Your task to perform on an android device: What is the speed of a bicycle? Image 0: 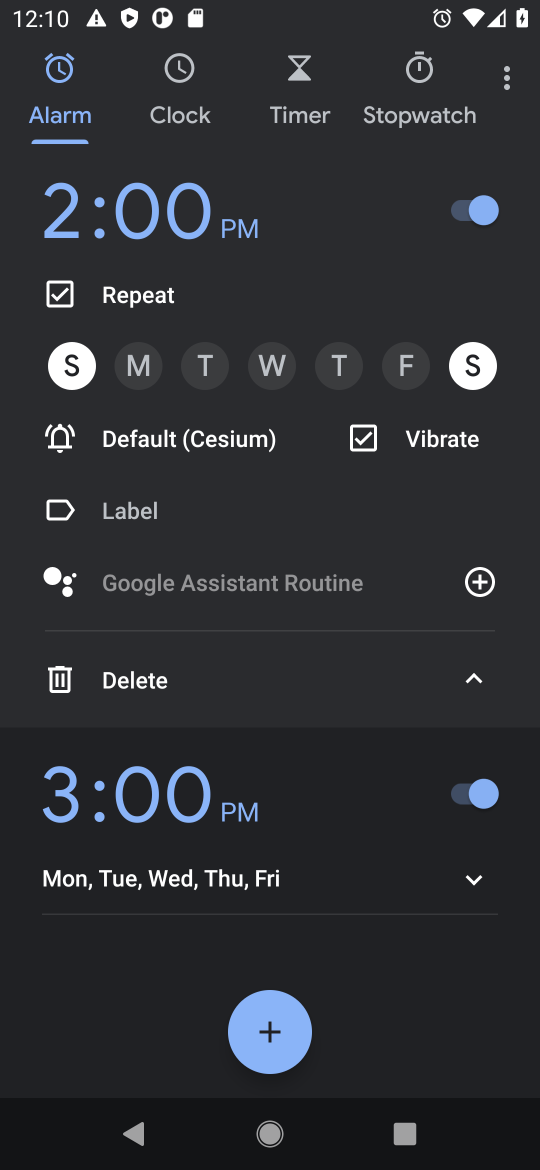
Step 0: press home button
Your task to perform on an android device: What is the speed of a bicycle? Image 1: 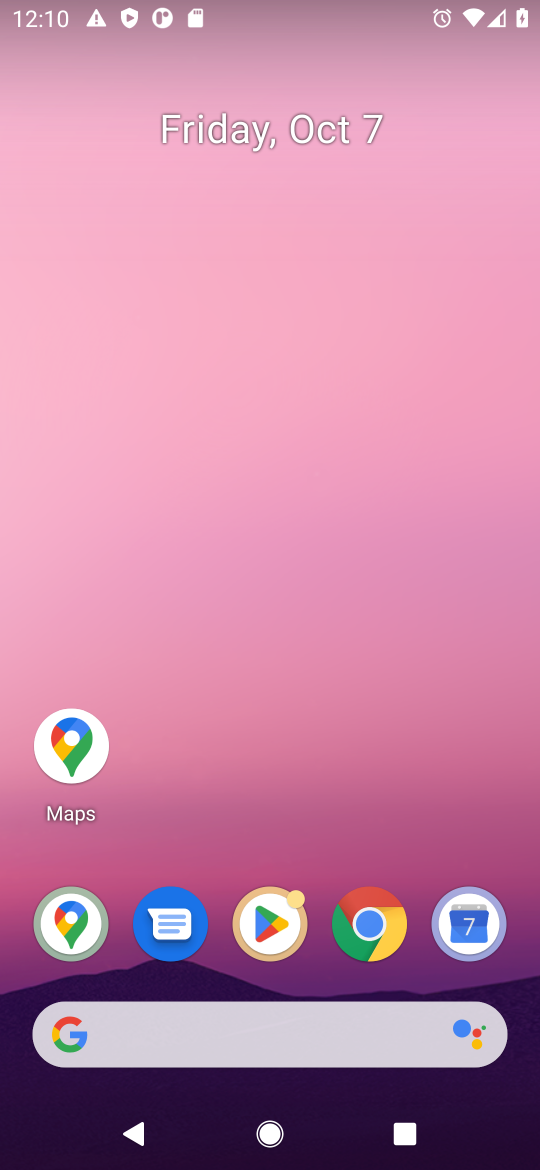
Step 1: click (375, 919)
Your task to perform on an android device: What is the speed of a bicycle? Image 2: 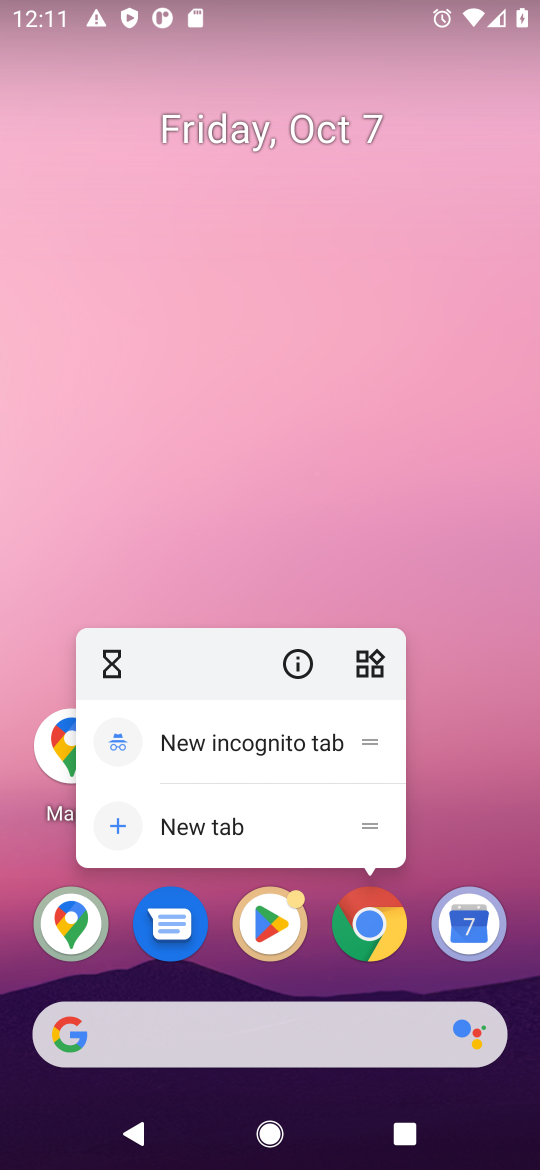
Step 2: click (357, 934)
Your task to perform on an android device: What is the speed of a bicycle? Image 3: 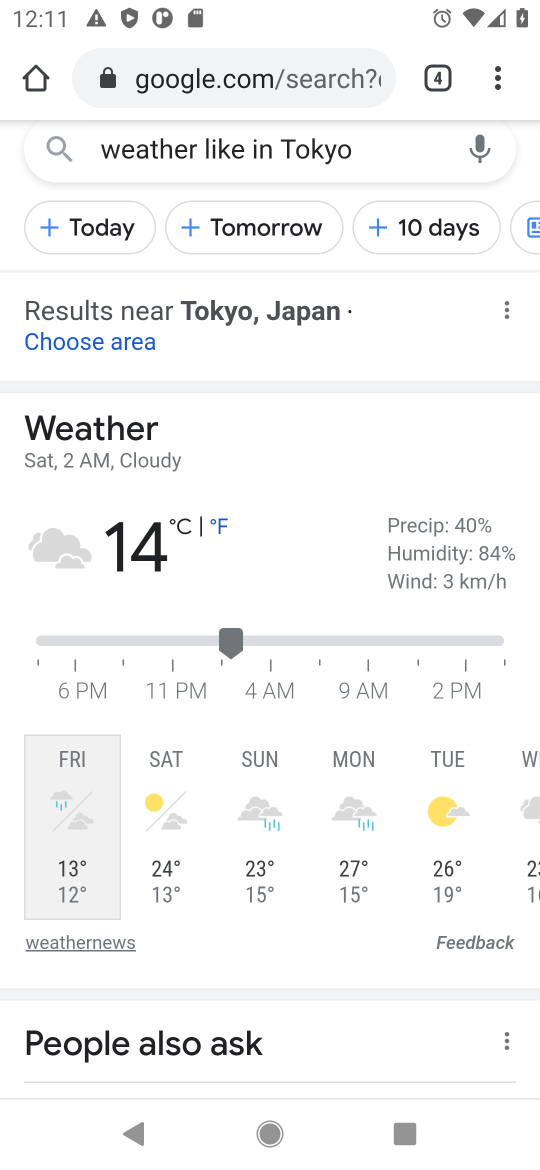
Step 3: click (337, 68)
Your task to perform on an android device: What is the speed of a bicycle? Image 4: 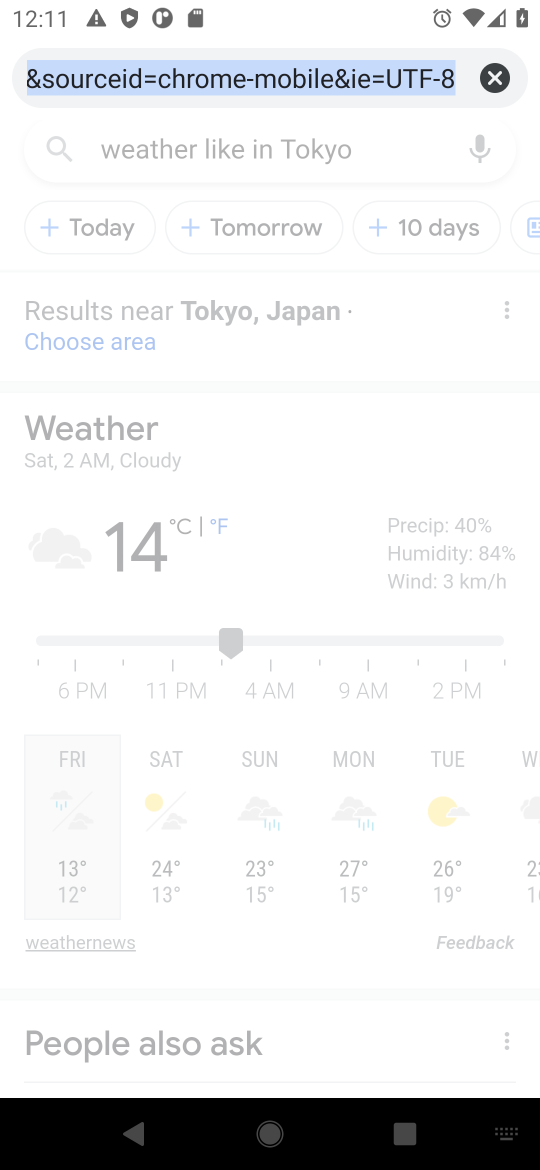
Step 4: click (488, 71)
Your task to perform on an android device: What is the speed of a bicycle? Image 5: 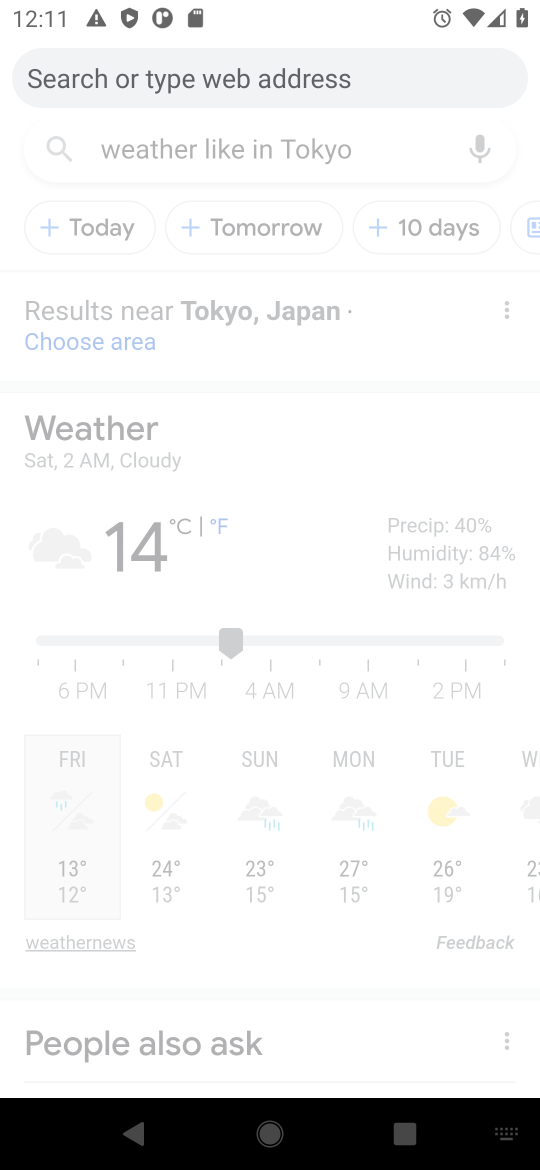
Step 5: type "speed of a bicycle"
Your task to perform on an android device: What is the speed of a bicycle? Image 6: 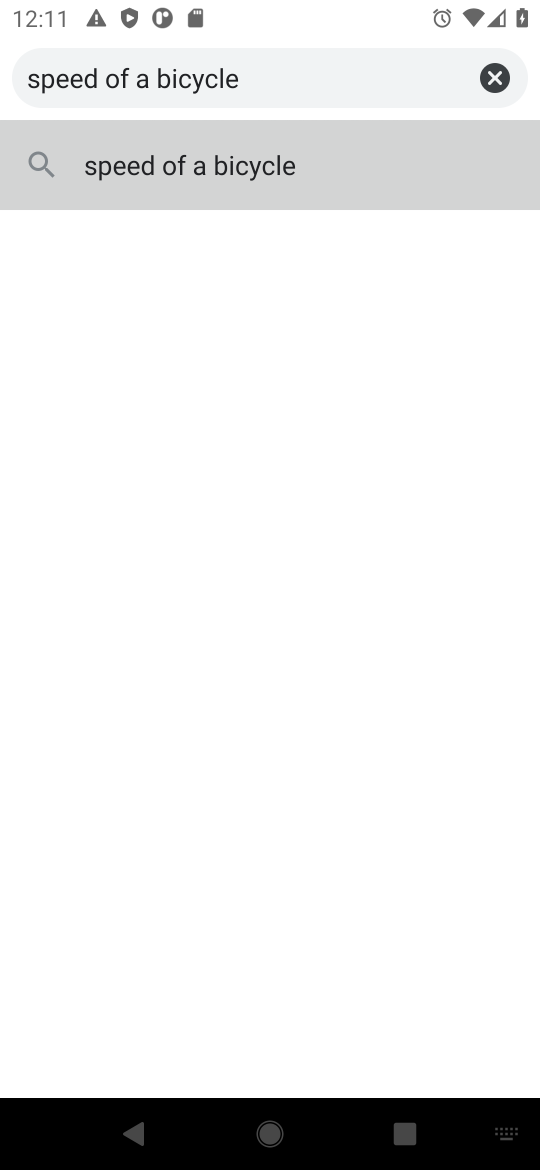
Step 6: click (235, 155)
Your task to perform on an android device: What is the speed of a bicycle? Image 7: 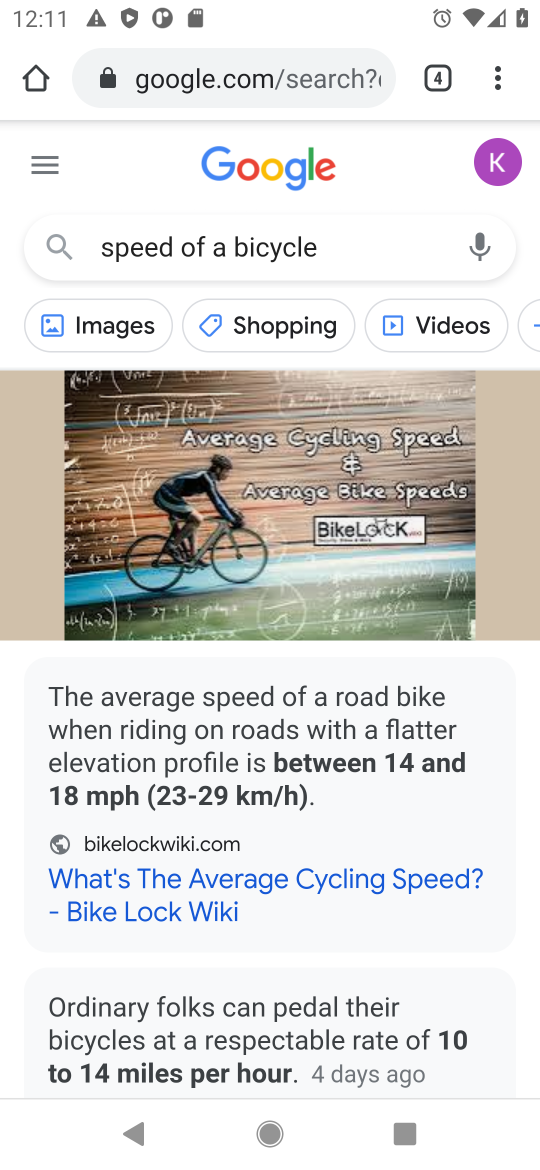
Step 7: task complete